Your task to perform on an android device: Show me popular videos on Youtube Image 0: 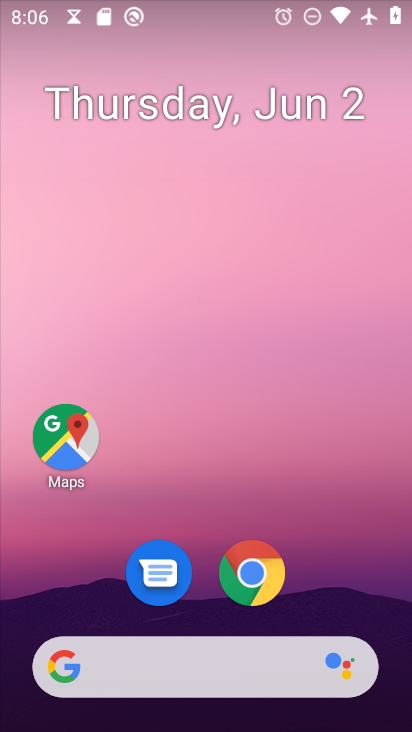
Step 0: drag from (204, 628) to (366, 95)
Your task to perform on an android device: Show me popular videos on Youtube Image 1: 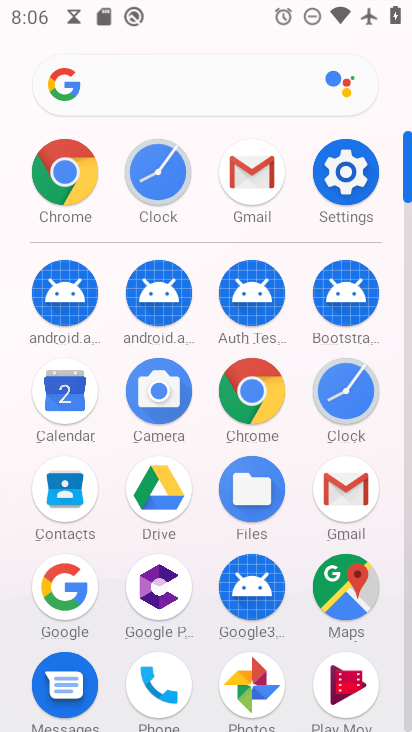
Step 1: drag from (280, 654) to (399, 150)
Your task to perform on an android device: Show me popular videos on Youtube Image 2: 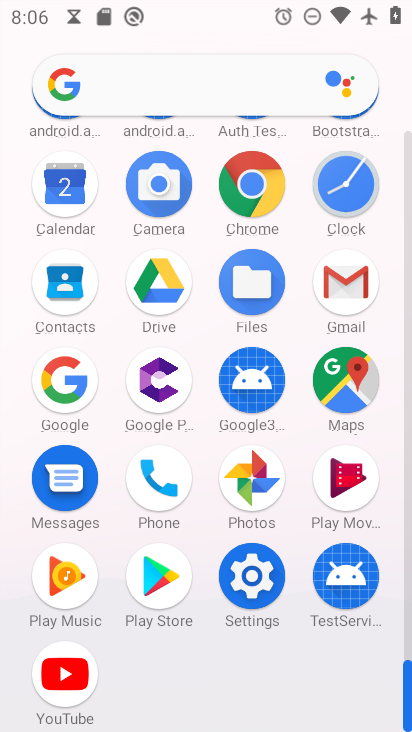
Step 2: click (72, 675)
Your task to perform on an android device: Show me popular videos on Youtube Image 3: 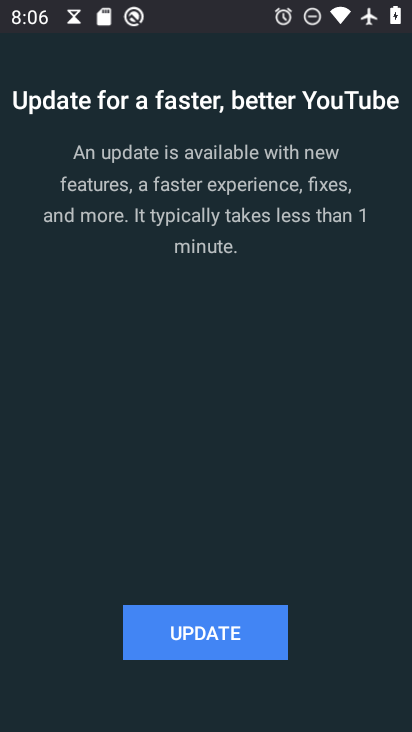
Step 3: click (213, 638)
Your task to perform on an android device: Show me popular videos on Youtube Image 4: 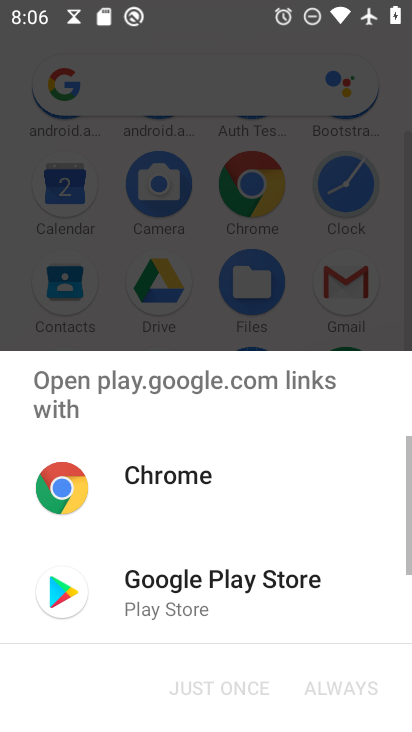
Step 4: click (170, 587)
Your task to perform on an android device: Show me popular videos on Youtube Image 5: 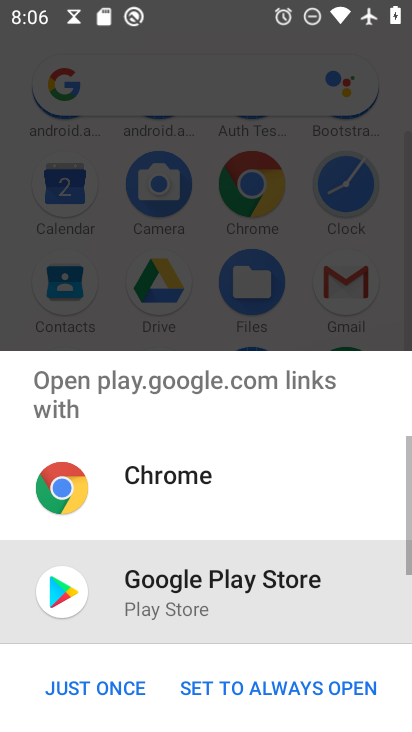
Step 5: click (105, 691)
Your task to perform on an android device: Show me popular videos on Youtube Image 6: 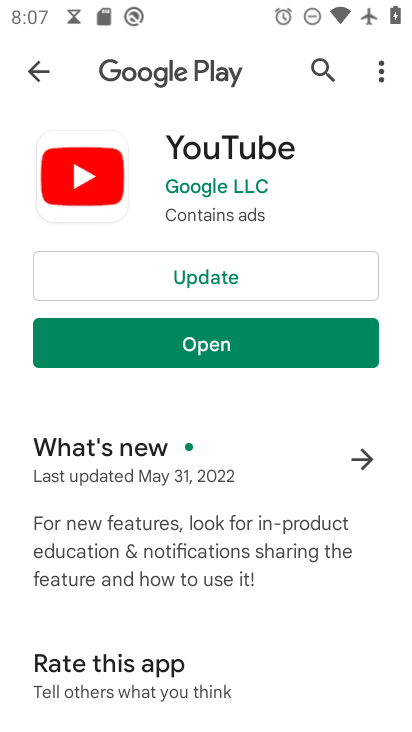
Step 6: click (255, 272)
Your task to perform on an android device: Show me popular videos on Youtube Image 7: 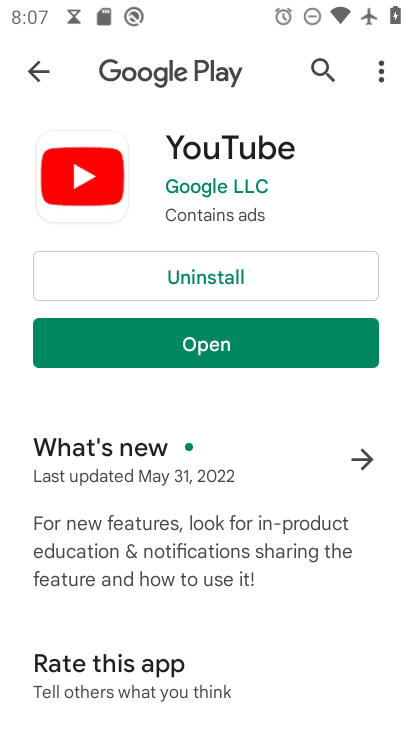
Step 7: click (201, 345)
Your task to perform on an android device: Show me popular videos on Youtube Image 8: 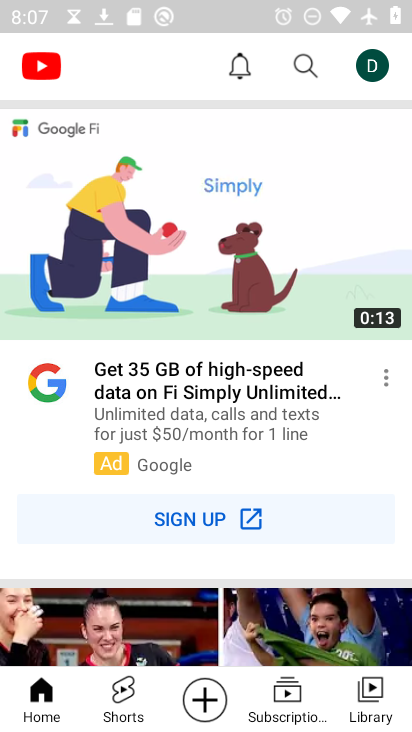
Step 8: task complete